Your task to perform on an android device: toggle notification dots Image 0: 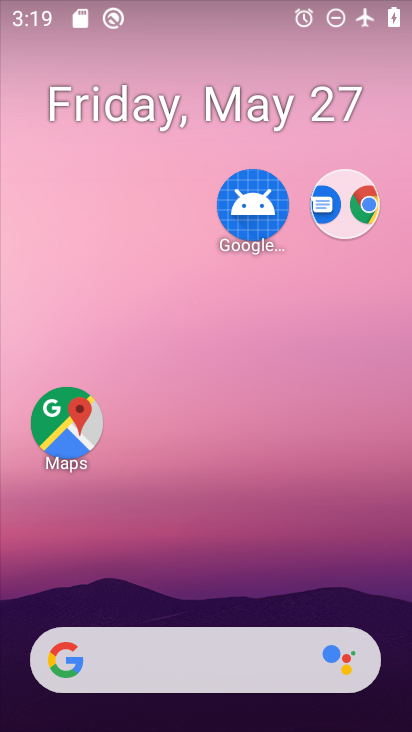
Step 0: drag from (281, 688) to (314, 128)
Your task to perform on an android device: toggle notification dots Image 1: 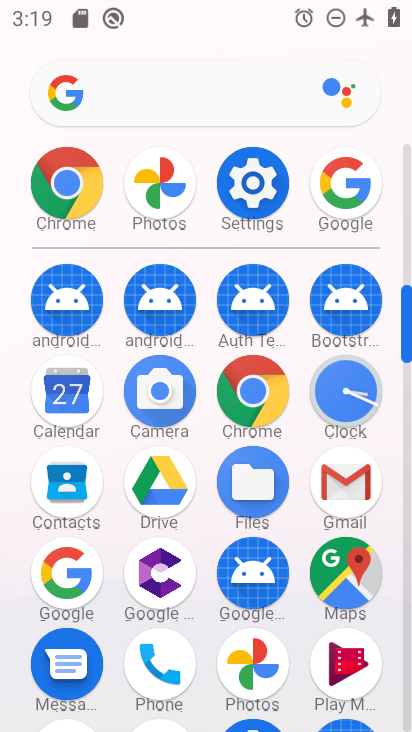
Step 1: click (263, 181)
Your task to perform on an android device: toggle notification dots Image 2: 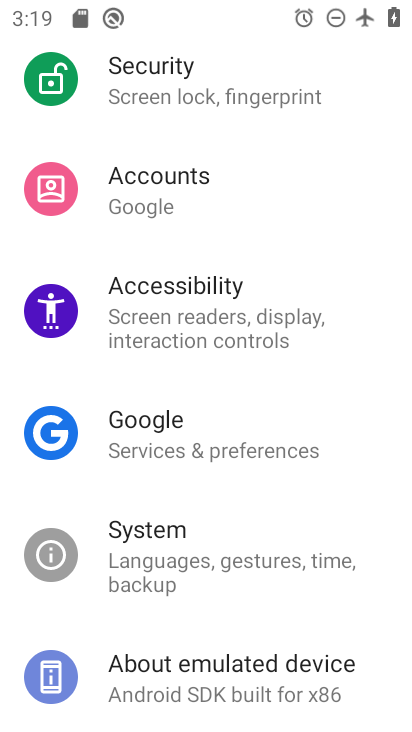
Step 2: drag from (262, 181) to (278, 458)
Your task to perform on an android device: toggle notification dots Image 3: 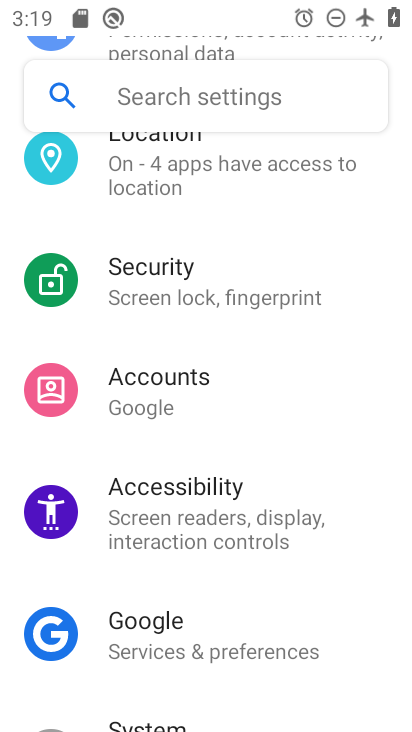
Step 3: drag from (219, 252) to (226, 671)
Your task to perform on an android device: toggle notification dots Image 4: 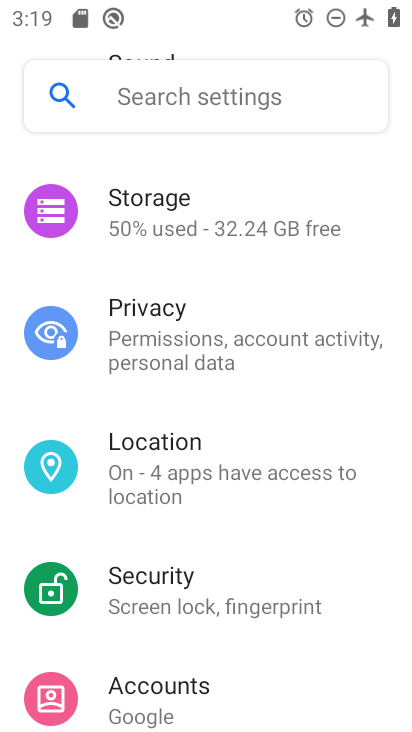
Step 4: drag from (222, 347) to (235, 595)
Your task to perform on an android device: toggle notification dots Image 5: 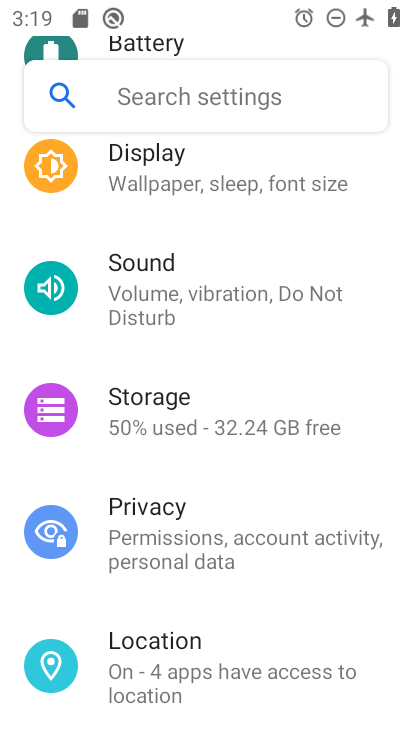
Step 5: click (251, 312)
Your task to perform on an android device: toggle notification dots Image 6: 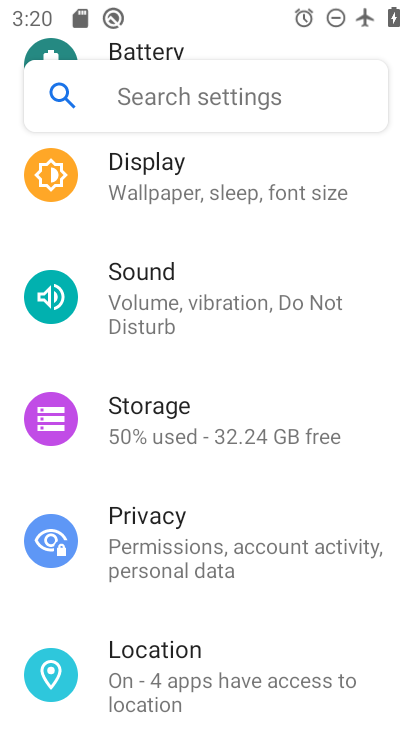
Step 6: drag from (203, 199) to (229, 560)
Your task to perform on an android device: toggle notification dots Image 7: 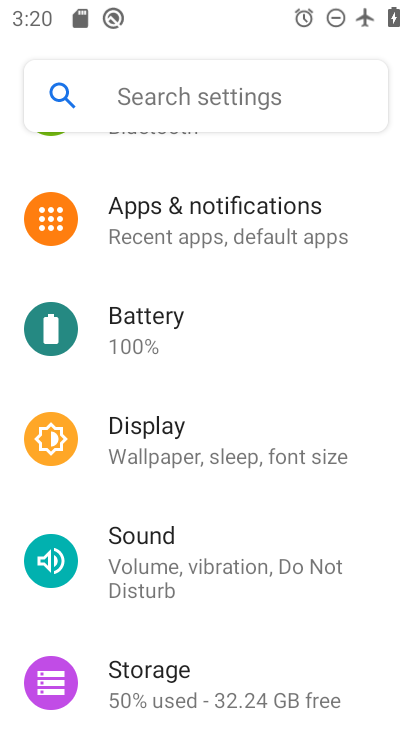
Step 7: click (265, 245)
Your task to perform on an android device: toggle notification dots Image 8: 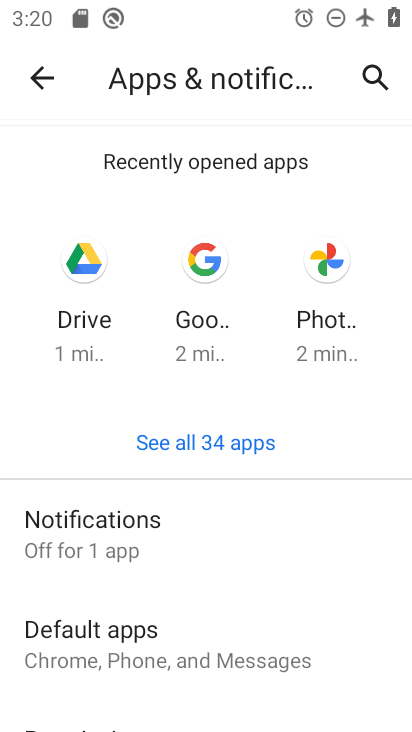
Step 8: click (143, 528)
Your task to perform on an android device: toggle notification dots Image 9: 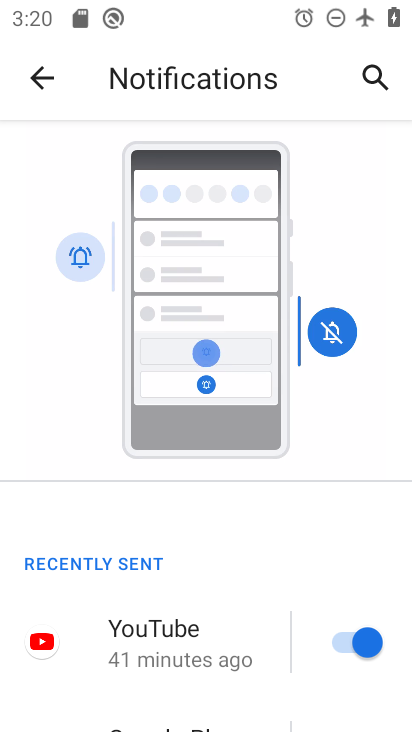
Step 9: drag from (154, 649) to (246, 205)
Your task to perform on an android device: toggle notification dots Image 10: 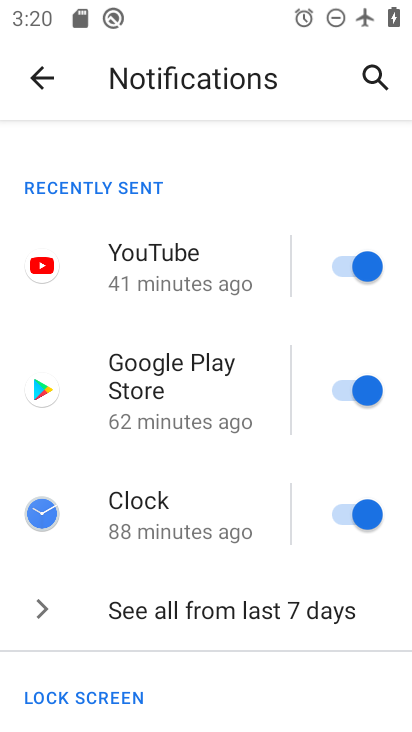
Step 10: drag from (155, 589) to (219, 339)
Your task to perform on an android device: toggle notification dots Image 11: 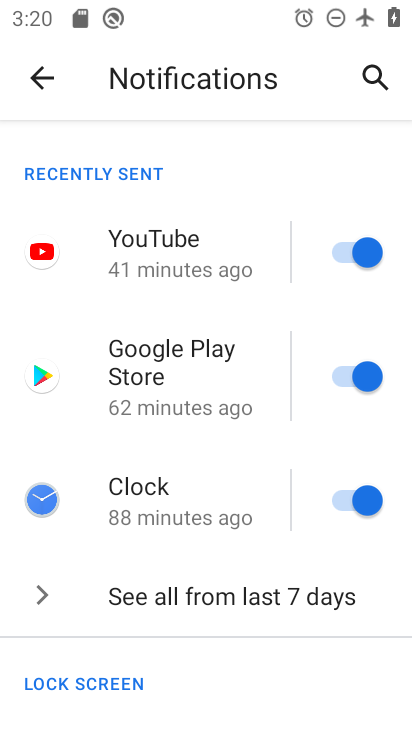
Step 11: drag from (172, 606) to (213, 303)
Your task to perform on an android device: toggle notification dots Image 12: 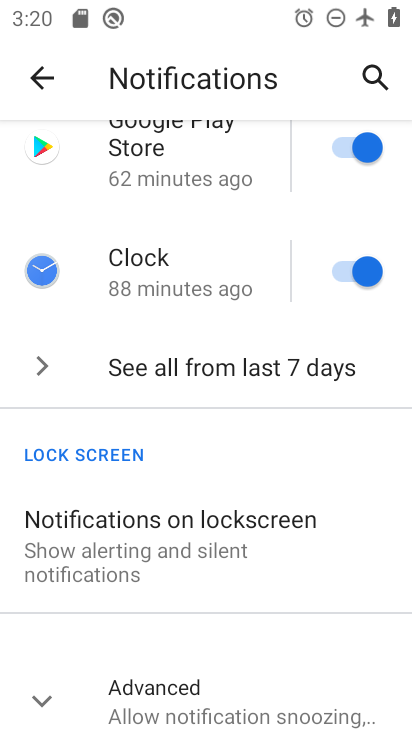
Step 12: drag from (167, 664) to (193, 462)
Your task to perform on an android device: toggle notification dots Image 13: 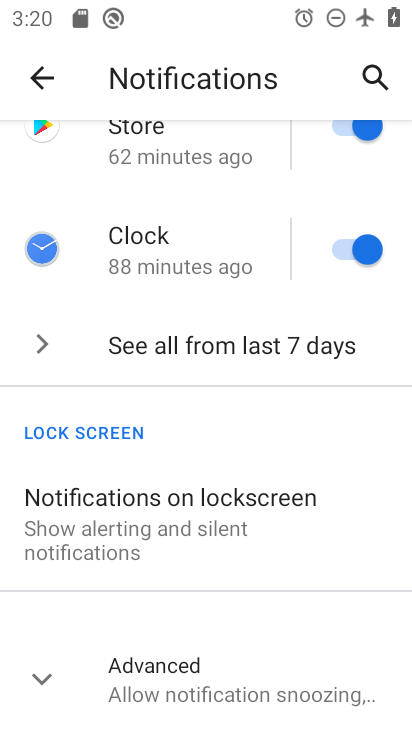
Step 13: click (165, 688)
Your task to perform on an android device: toggle notification dots Image 14: 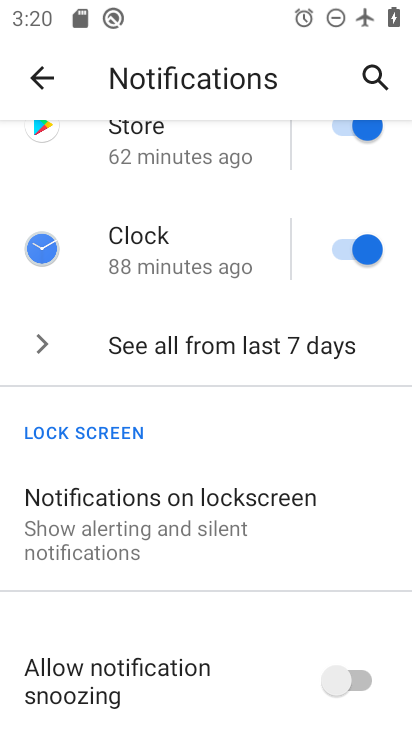
Step 14: drag from (165, 688) to (221, 356)
Your task to perform on an android device: toggle notification dots Image 15: 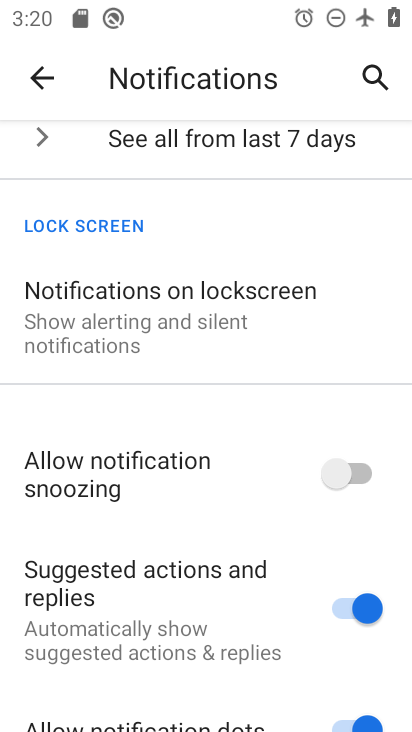
Step 15: drag from (243, 621) to (253, 140)
Your task to perform on an android device: toggle notification dots Image 16: 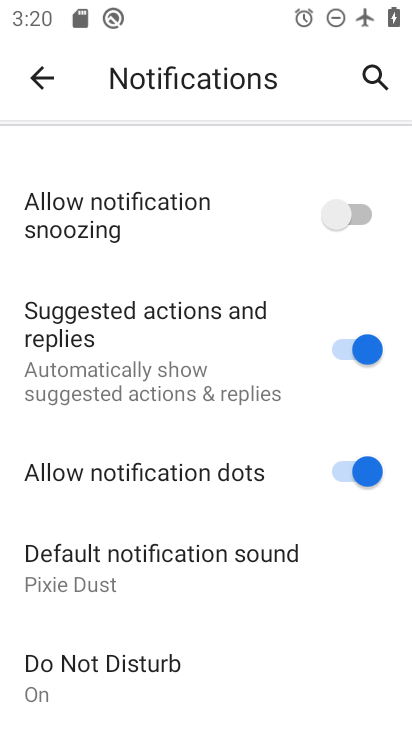
Step 16: click (333, 479)
Your task to perform on an android device: toggle notification dots Image 17: 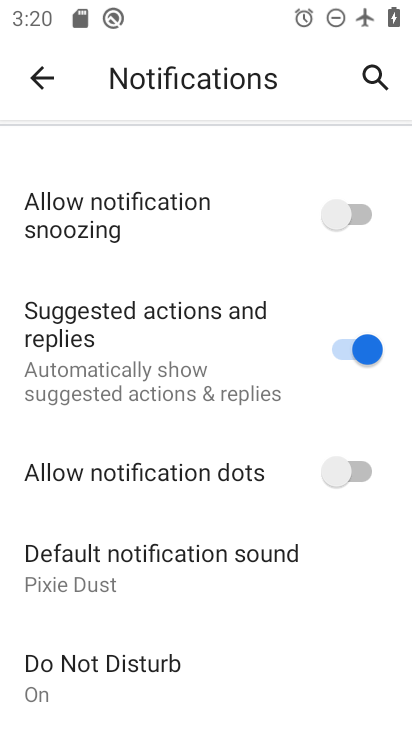
Step 17: task complete